Your task to perform on an android device: Search for Mexican restaurants on Maps Image 0: 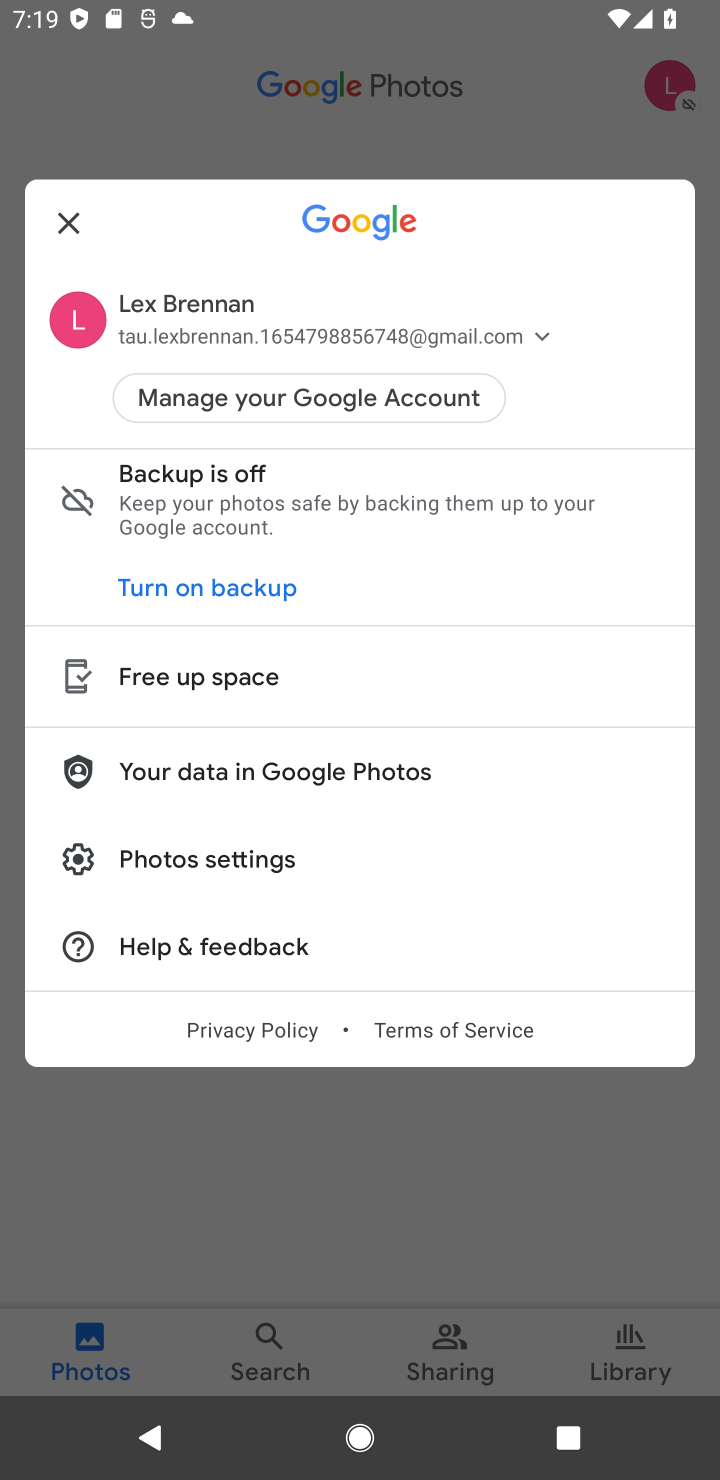
Step 0: task complete